Your task to perform on an android device: check out phone information Image 0: 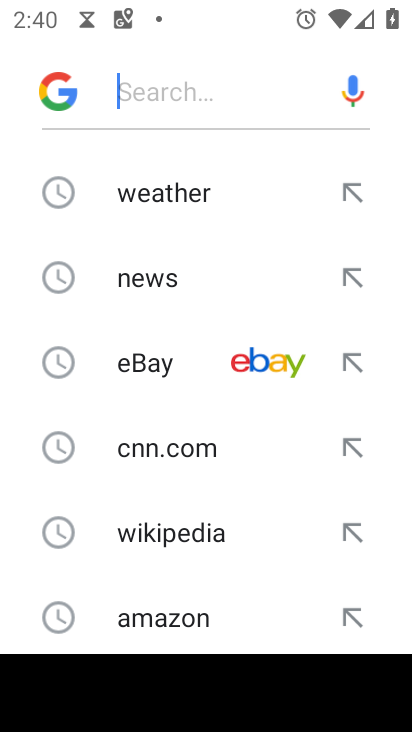
Step 0: press home button
Your task to perform on an android device: check out phone information Image 1: 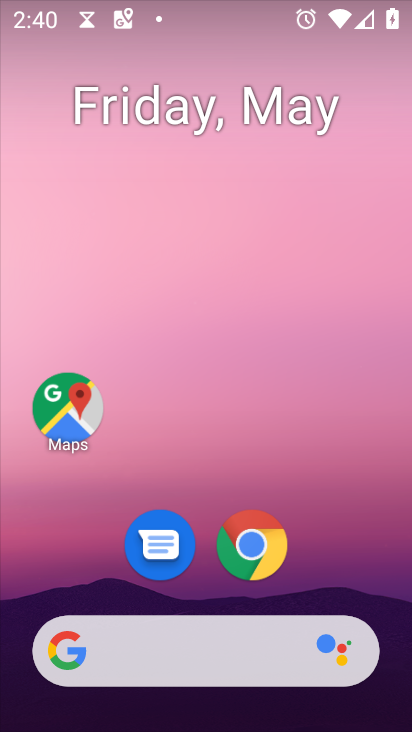
Step 1: drag from (330, 575) to (311, 130)
Your task to perform on an android device: check out phone information Image 2: 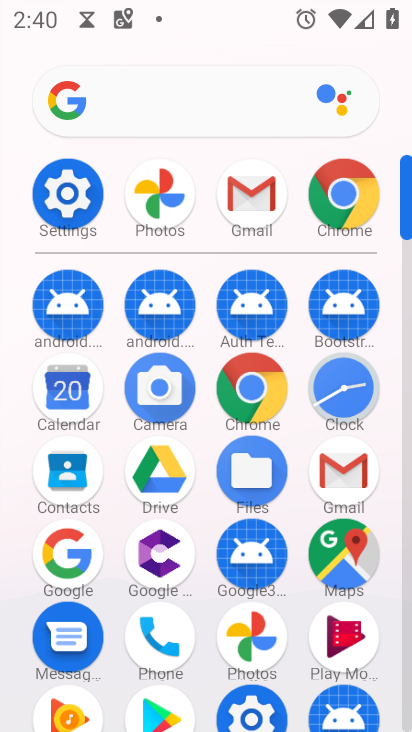
Step 2: click (81, 192)
Your task to perform on an android device: check out phone information Image 3: 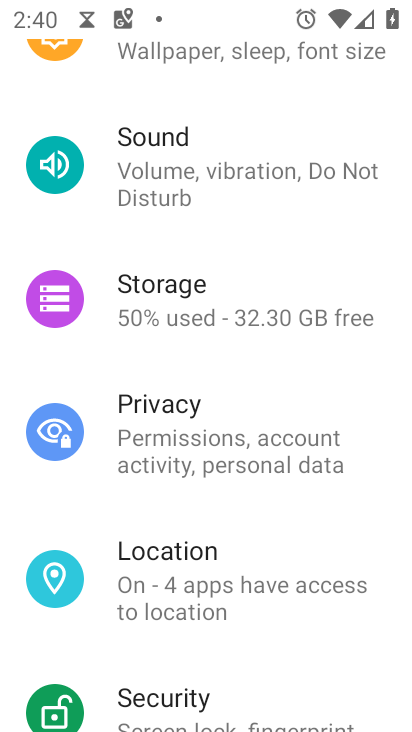
Step 3: drag from (333, 620) to (313, 205)
Your task to perform on an android device: check out phone information Image 4: 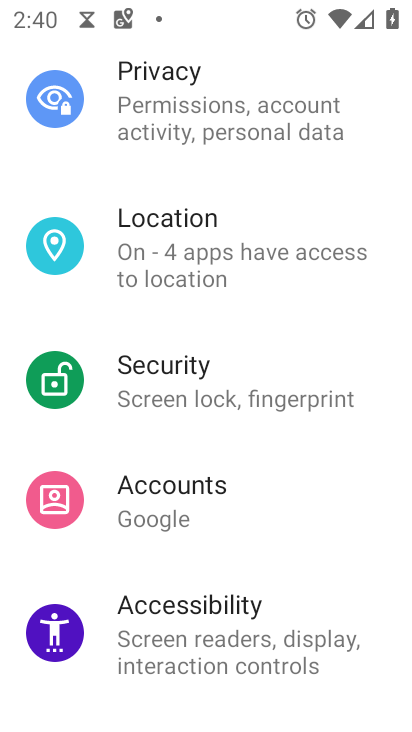
Step 4: drag from (268, 661) to (249, 338)
Your task to perform on an android device: check out phone information Image 5: 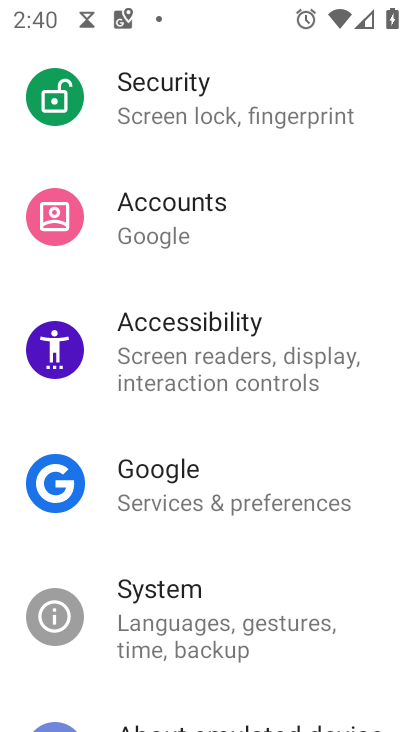
Step 5: drag from (257, 563) to (279, 244)
Your task to perform on an android device: check out phone information Image 6: 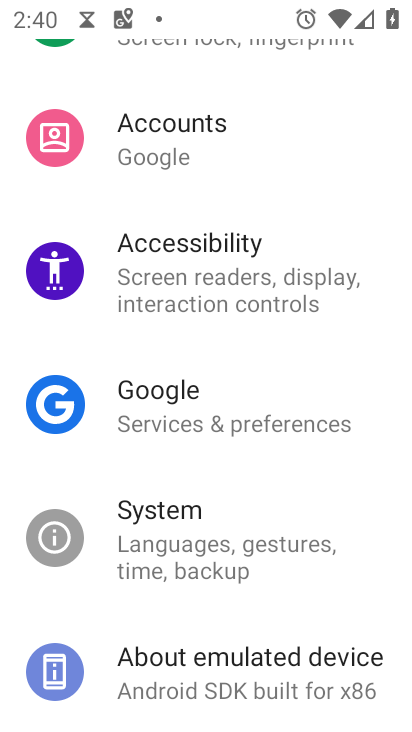
Step 6: click (266, 682)
Your task to perform on an android device: check out phone information Image 7: 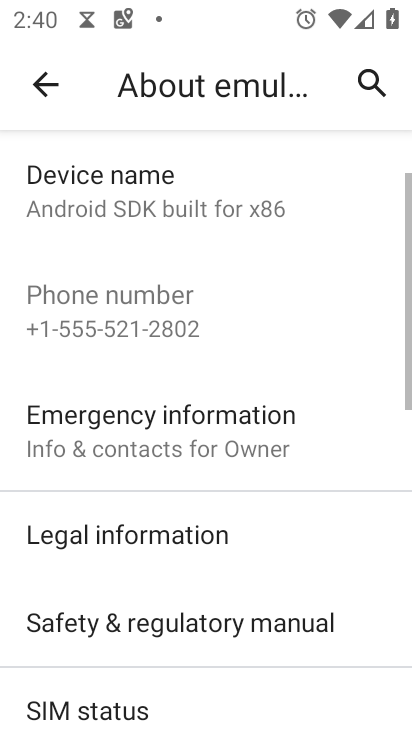
Step 7: drag from (328, 553) to (320, 273)
Your task to perform on an android device: check out phone information Image 8: 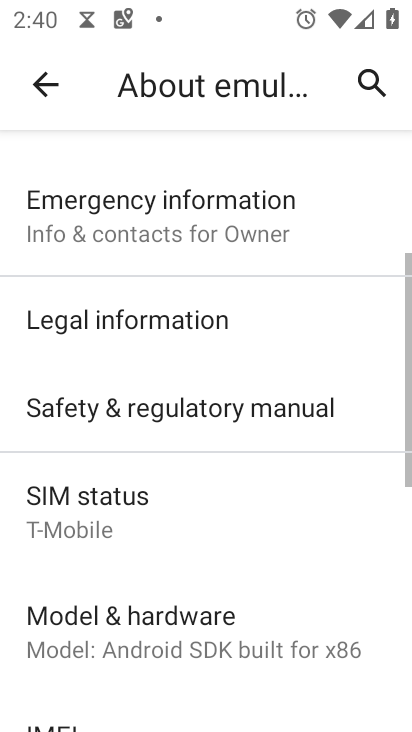
Step 8: click (221, 638)
Your task to perform on an android device: check out phone information Image 9: 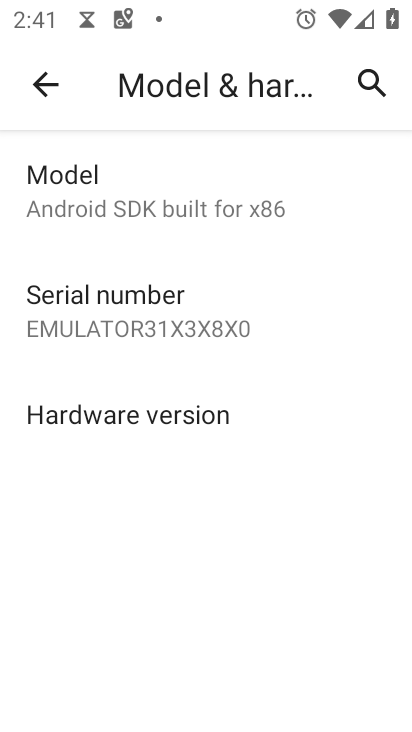
Step 9: task complete